Your task to perform on an android device: Search for Italian restaurants on Maps Image 0: 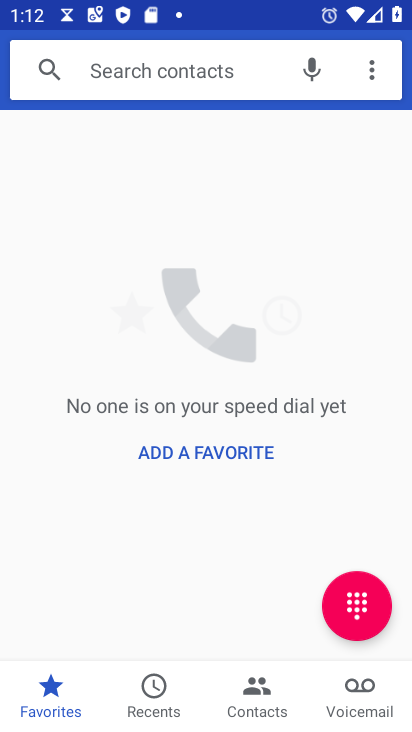
Step 0: press home button
Your task to perform on an android device: Search for Italian restaurants on Maps Image 1: 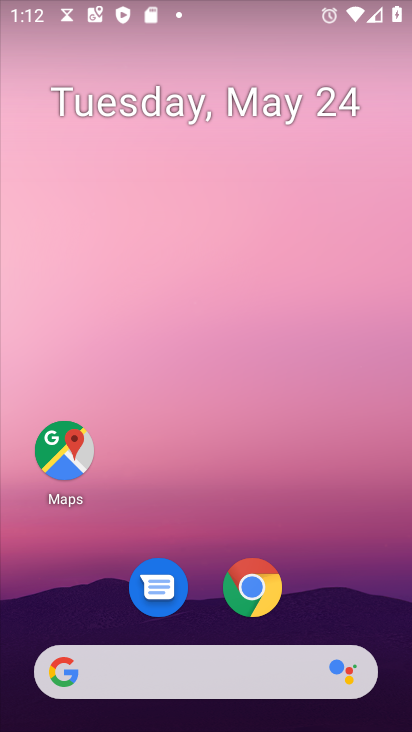
Step 1: click (66, 454)
Your task to perform on an android device: Search for Italian restaurants on Maps Image 2: 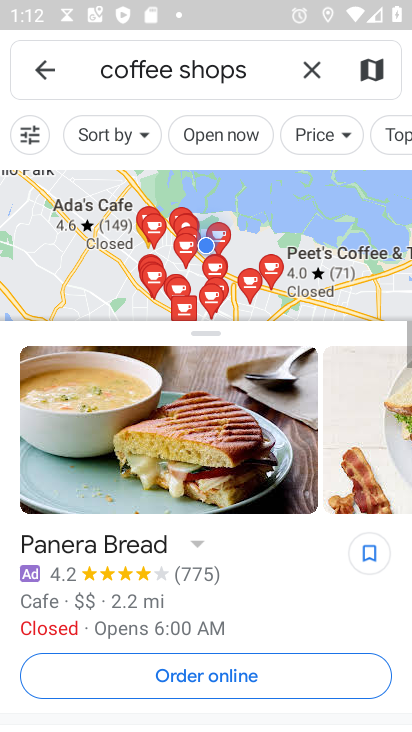
Step 2: click (313, 71)
Your task to perform on an android device: Search for Italian restaurants on Maps Image 3: 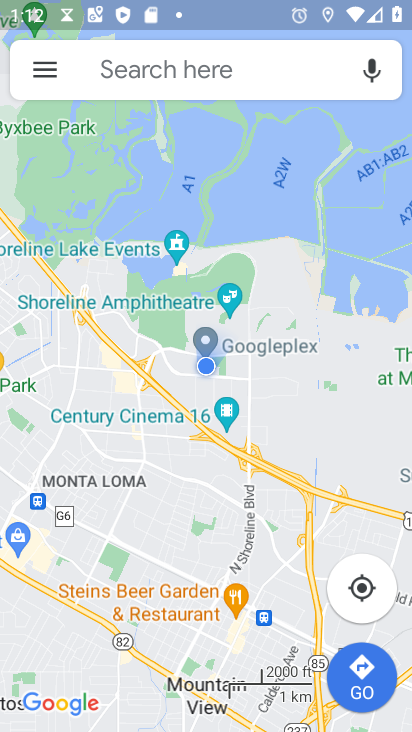
Step 3: click (162, 77)
Your task to perform on an android device: Search for Italian restaurants on Maps Image 4: 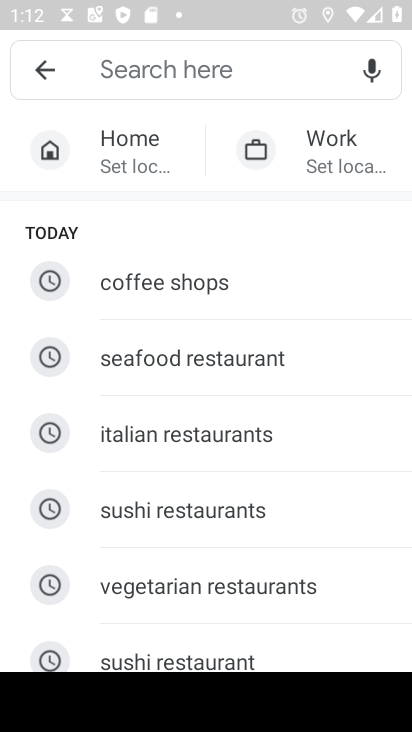
Step 4: click (206, 441)
Your task to perform on an android device: Search for Italian restaurants on Maps Image 5: 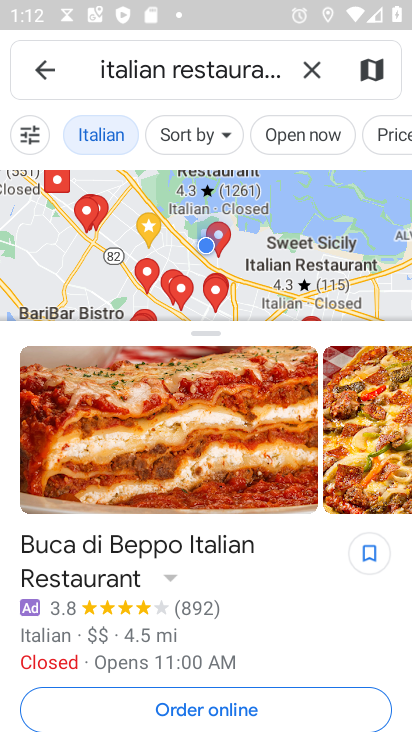
Step 5: task complete